Your task to perform on an android device: turn pop-ups on in chrome Image 0: 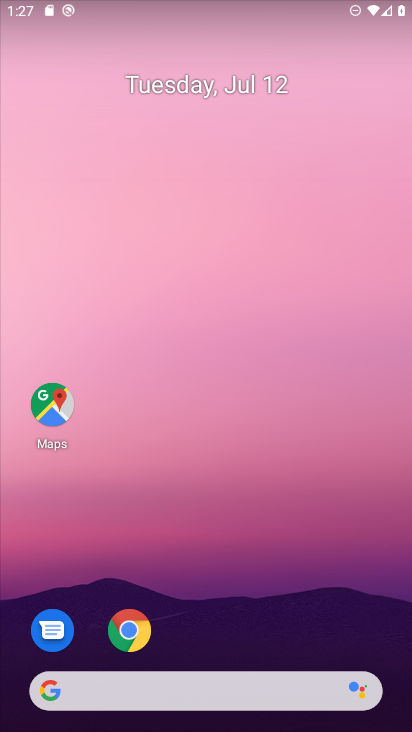
Step 0: click (132, 630)
Your task to perform on an android device: turn pop-ups on in chrome Image 1: 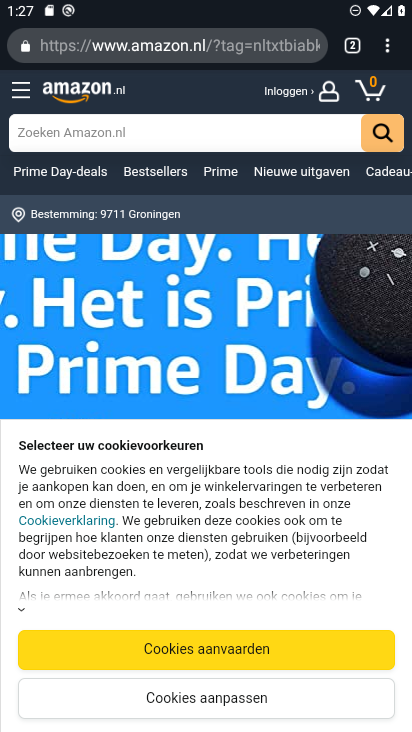
Step 1: click (385, 52)
Your task to perform on an android device: turn pop-ups on in chrome Image 2: 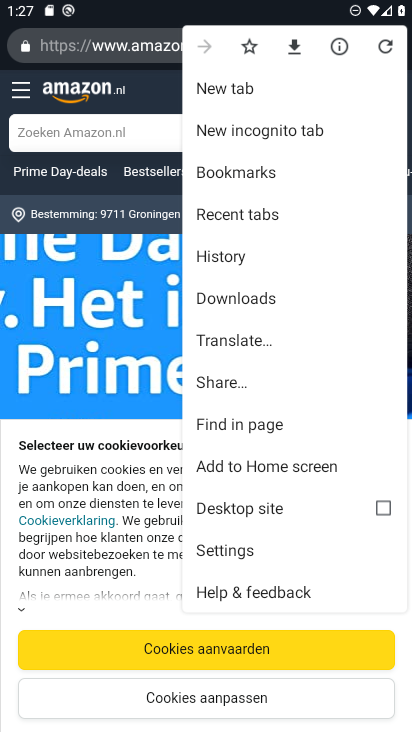
Step 2: click (224, 550)
Your task to perform on an android device: turn pop-ups on in chrome Image 3: 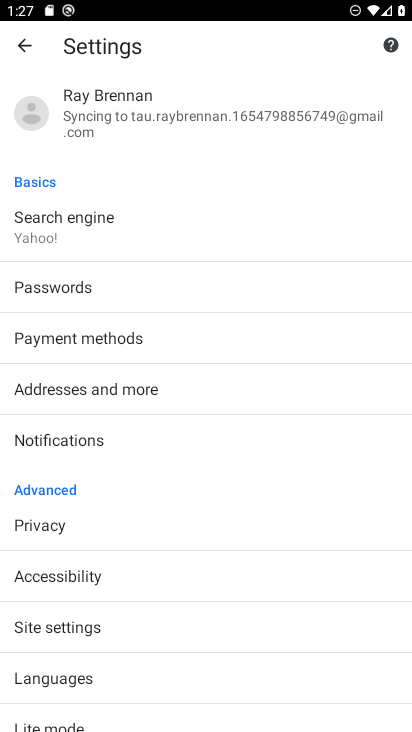
Step 3: click (67, 629)
Your task to perform on an android device: turn pop-ups on in chrome Image 4: 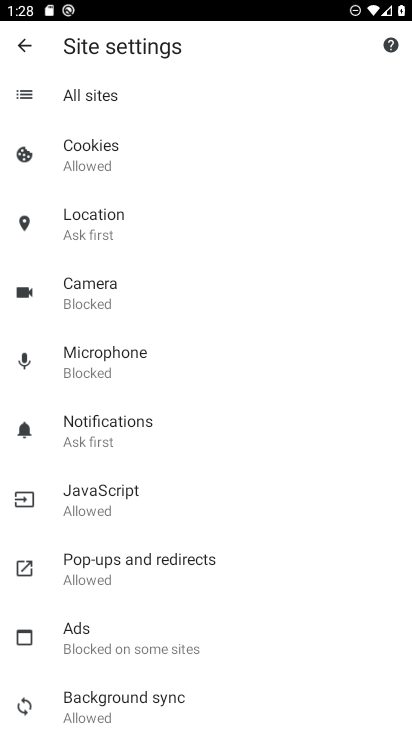
Step 4: click (116, 562)
Your task to perform on an android device: turn pop-ups on in chrome Image 5: 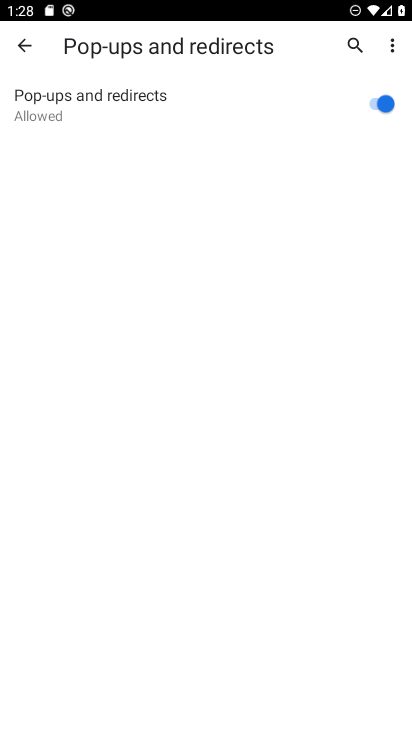
Step 5: task complete